Your task to perform on an android device: open app "Google Keep" (install if not already installed) Image 0: 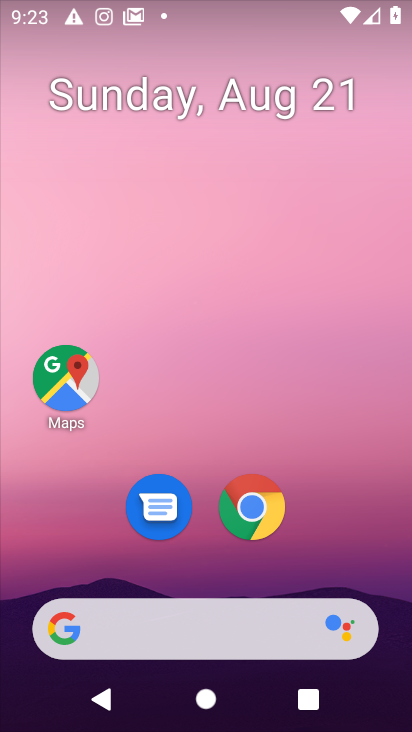
Step 0: drag from (209, 485) to (173, 0)
Your task to perform on an android device: open app "Google Keep" (install if not already installed) Image 1: 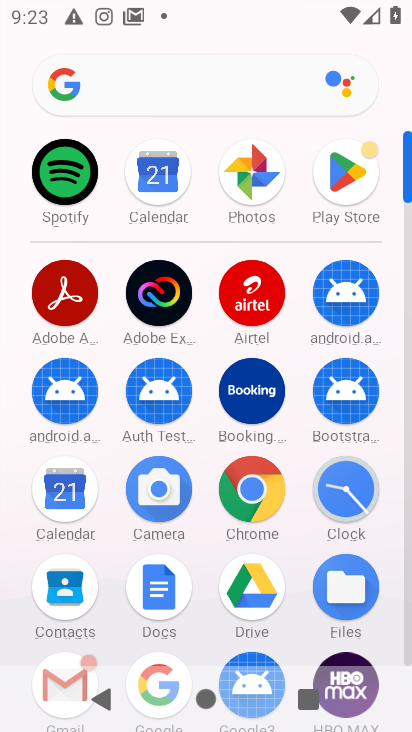
Step 1: click (339, 189)
Your task to perform on an android device: open app "Google Keep" (install if not already installed) Image 2: 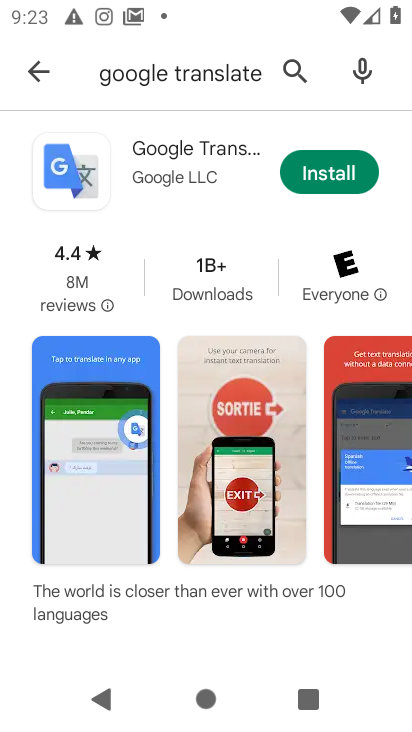
Step 2: click (30, 70)
Your task to perform on an android device: open app "Google Keep" (install if not already installed) Image 3: 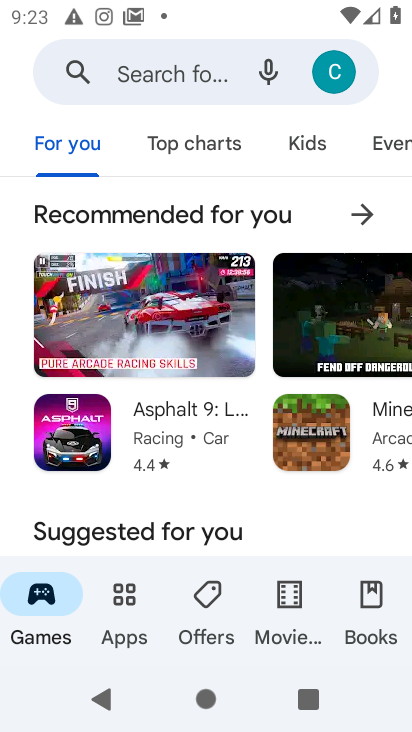
Step 3: click (177, 60)
Your task to perform on an android device: open app "Google Keep" (install if not already installed) Image 4: 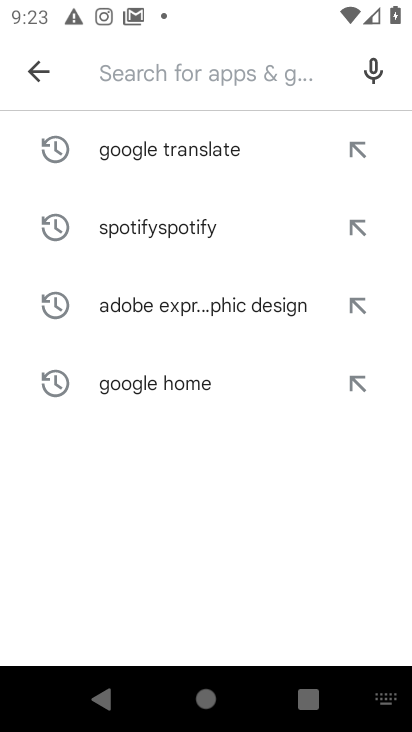
Step 4: type "Google Keep"
Your task to perform on an android device: open app "Google Keep" (install if not already installed) Image 5: 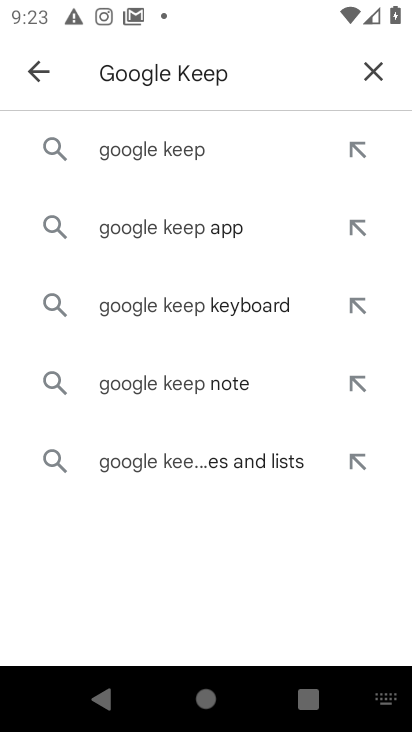
Step 5: click (162, 150)
Your task to perform on an android device: open app "Google Keep" (install if not already installed) Image 6: 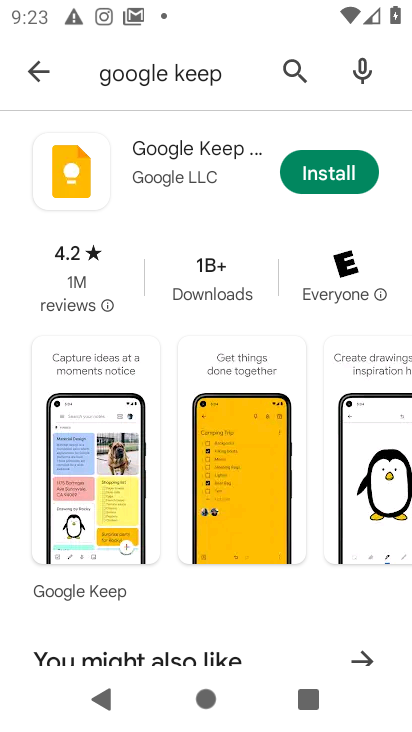
Step 6: click (313, 178)
Your task to perform on an android device: open app "Google Keep" (install if not already installed) Image 7: 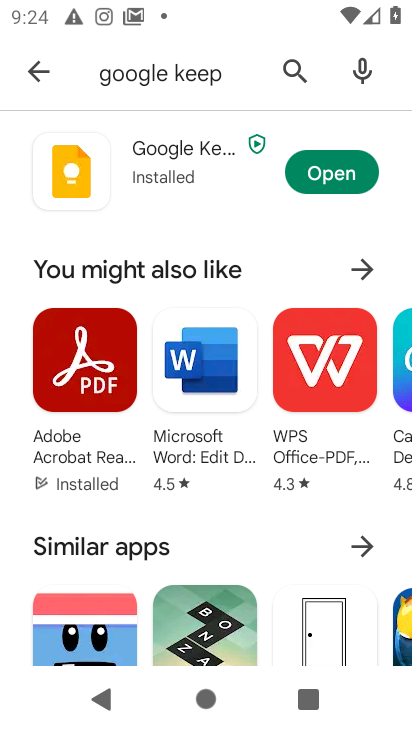
Step 7: click (344, 165)
Your task to perform on an android device: open app "Google Keep" (install if not already installed) Image 8: 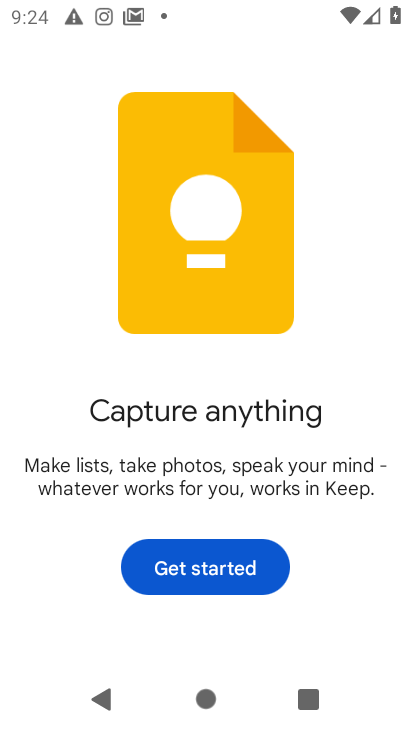
Step 8: task complete